Your task to perform on an android device: turn off priority inbox in the gmail app Image 0: 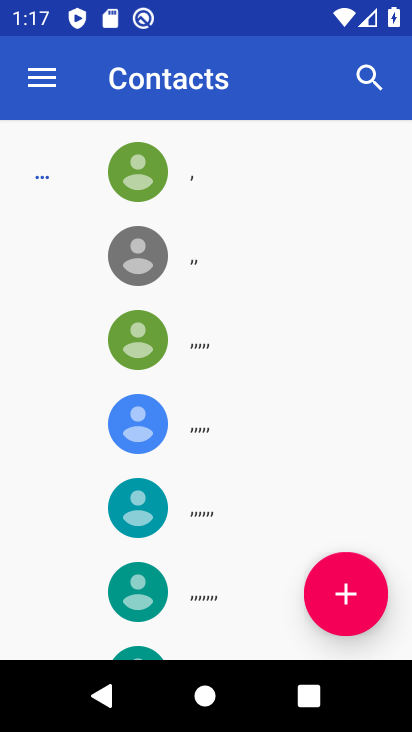
Step 0: press home button
Your task to perform on an android device: turn off priority inbox in the gmail app Image 1: 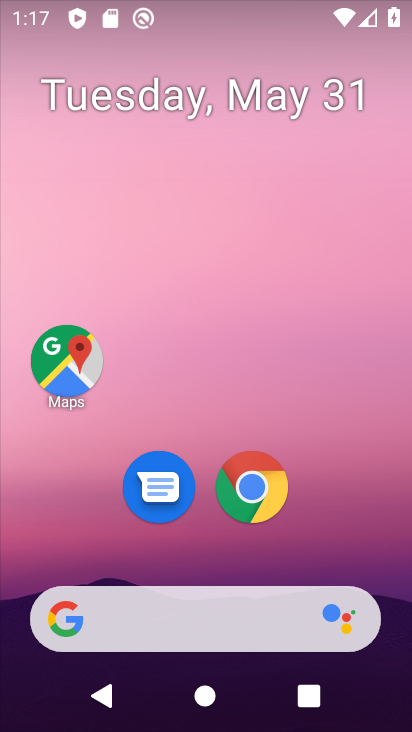
Step 1: drag from (112, 584) to (268, 85)
Your task to perform on an android device: turn off priority inbox in the gmail app Image 2: 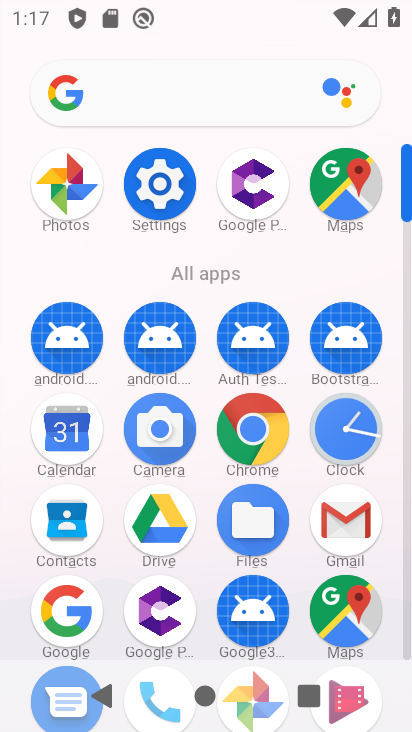
Step 2: click (345, 511)
Your task to perform on an android device: turn off priority inbox in the gmail app Image 3: 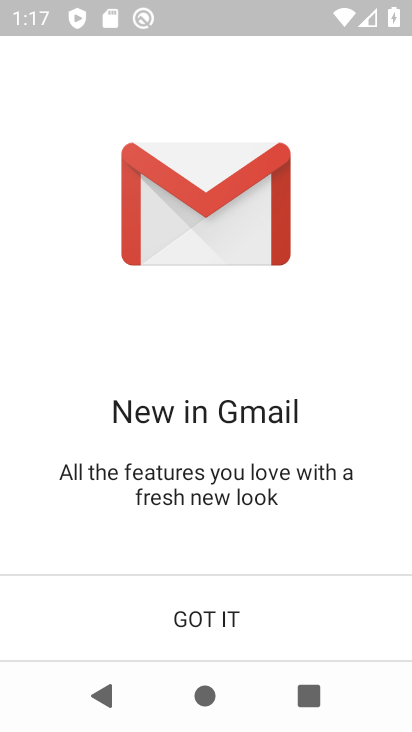
Step 3: click (247, 626)
Your task to perform on an android device: turn off priority inbox in the gmail app Image 4: 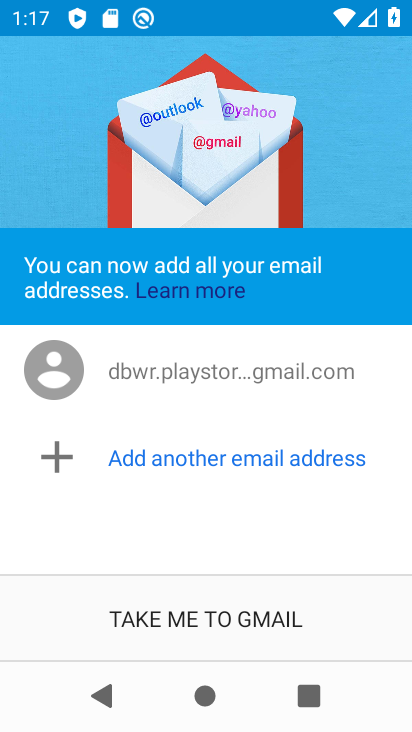
Step 4: click (253, 625)
Your task to perform on an android device: turn off priority inbox in the gmail app Image 5: 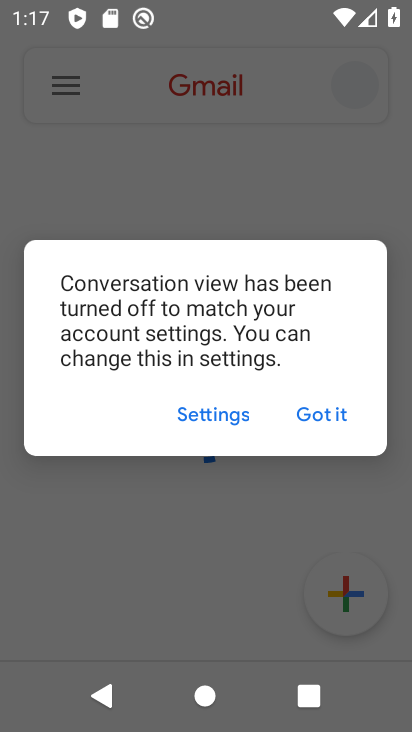
Step 5: click (341, 423)
Your task to perform on an android device: turn off priority inbox in the gmail app Image 6: 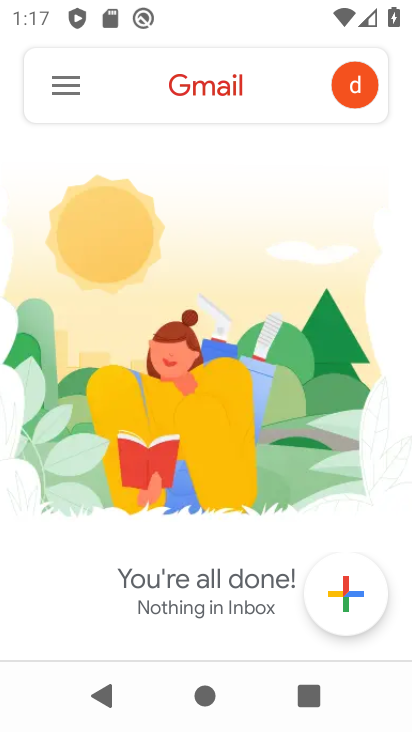
Step 6: click (75, 89)
Your task to perform on an android device: turn off priority inbox in the gmail app Image 7: 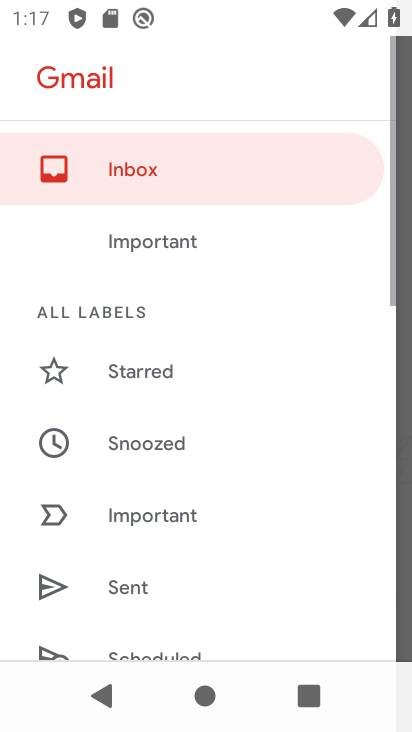
Step 7: drag from (190, 578) to (372, 49)
Your task to perform on an android device: turn off priority inbox in the gmail app Image 8: 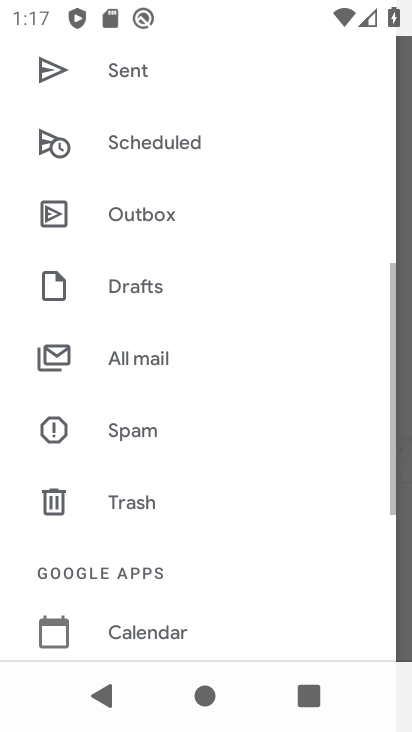
Step 8: drag from (276, 567) to (392, 169)
Your task to perform on an android device: turn off priority inbox in the gmail app Image 9: 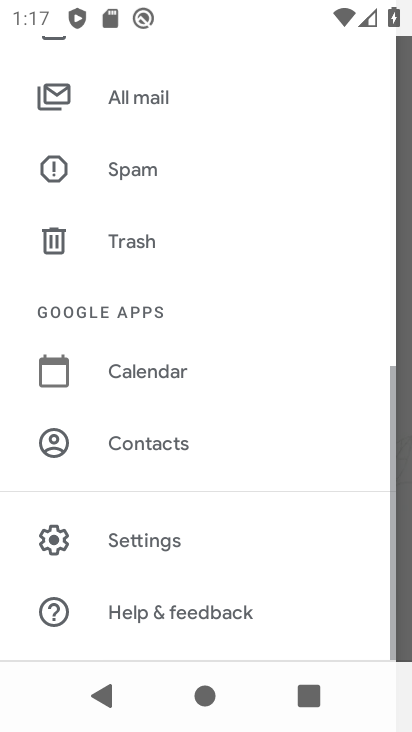
Step 9: click (193, 548)
Your task to perform on an android device: turn off priority inbox in the gmail app Image 10: 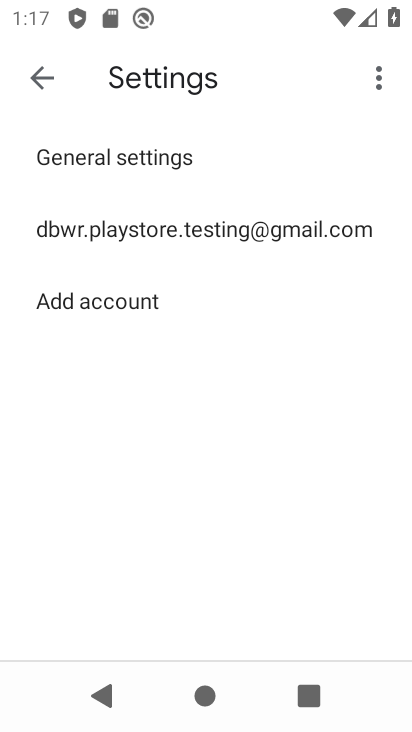
Step 10: click (290, 251)
Your task to perform on an android device: turn off priority inbox in the gmail app Image 11: 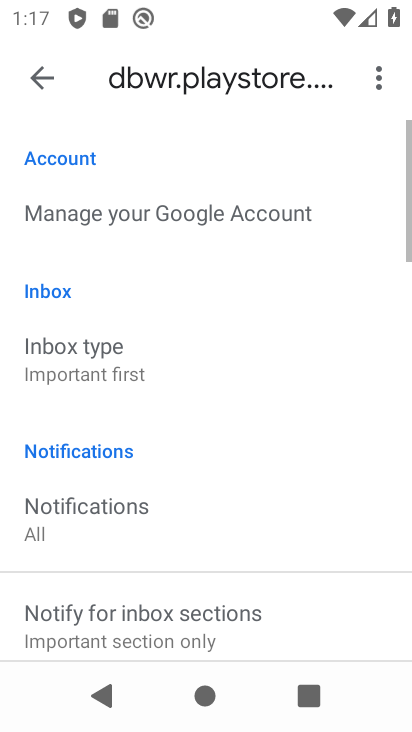
Step 11: drag from (251, 506) to (316, 470)
Your task to perform on an android device: turn off priority inbox in the gmail app Image 12: 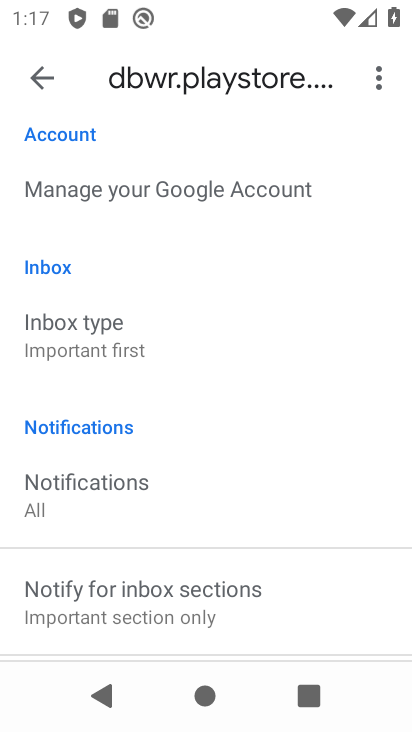
Step 12: click (171, 353)
Your task to perform on an android device: turn off priority inbox in the gmail app Image 13: 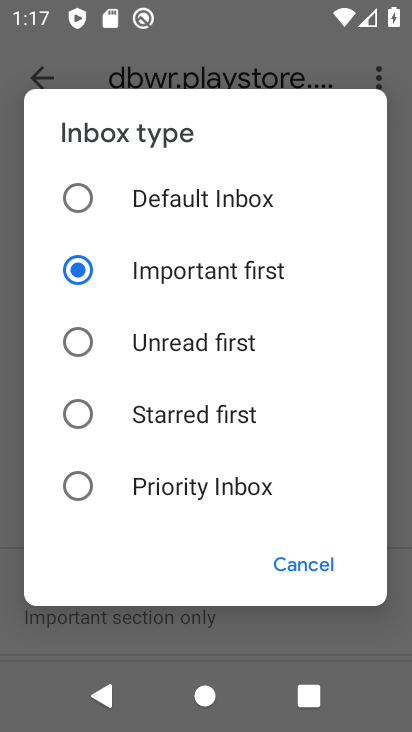
Step 13: task complete